Your task to perform on an android device: Open the phone app and click the voicemail tab. Image 0: 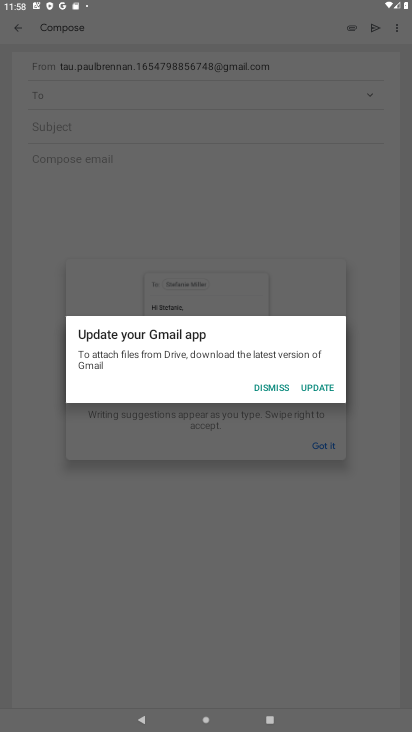
Step 0: press home button
Your task to perform on an android device: Open the phone app and click the voicemail tab. Image 1: 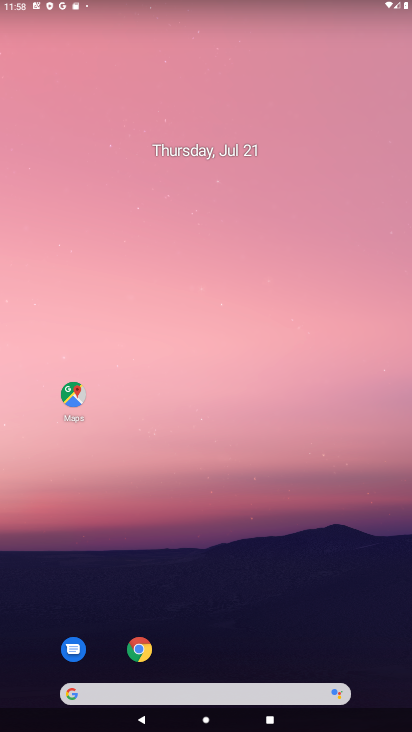
Step 1: drag from (217, 720) to (224, 181)
Your task to perform on an android device: Open the phone app and click the voicemail tab. Image 2: 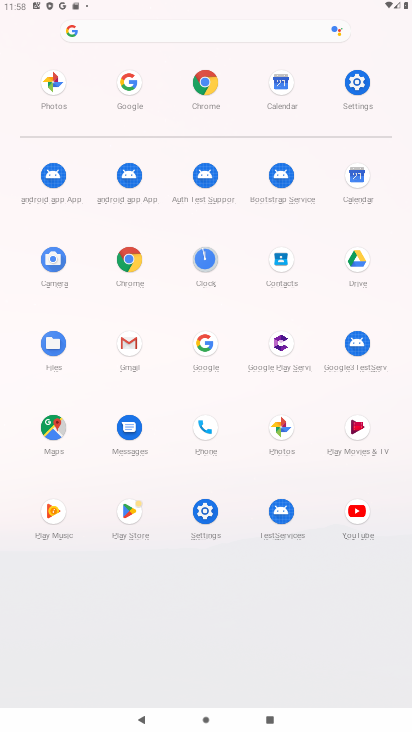
Step 2: click (201, 431)
Your task to perform on an android device: Open the phone app and click the voicemail tab. Image 3: 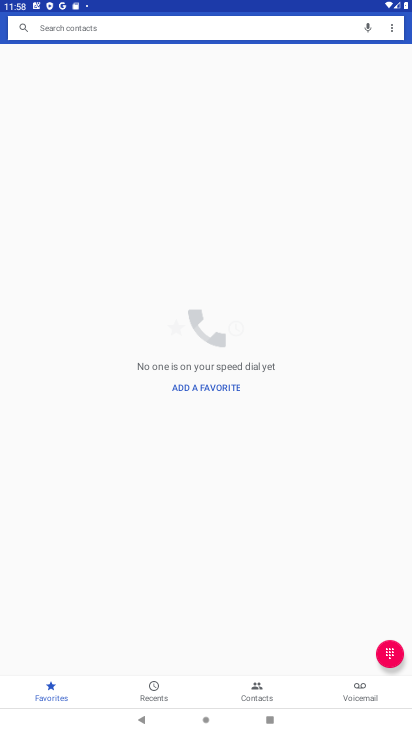
Step 3: click (359, 690)
Your task to perform on an android device: Open the phone app and click the voicemail tab. Image 4: 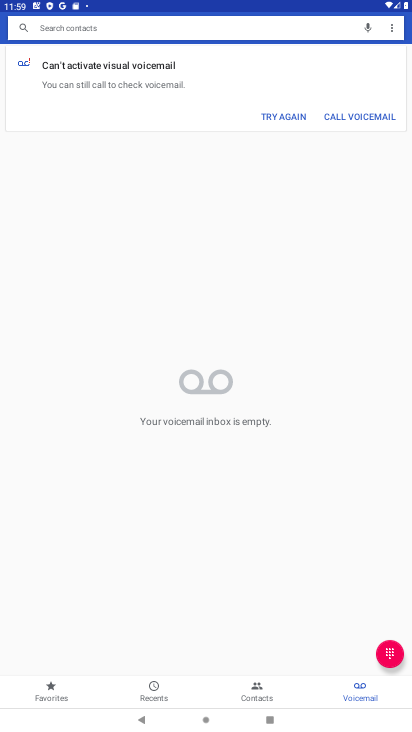
Step 4: task complete